Your task to perform on an android device: turn off wifi Image 0: 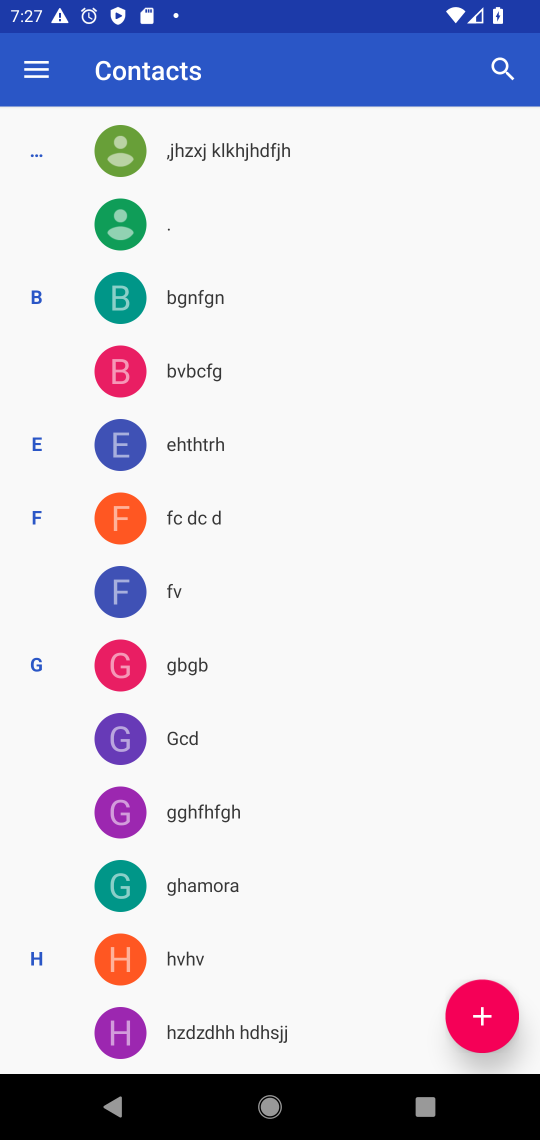
Step 0: press home button
Your task to perform on an android device: turn off wifi Image 1: 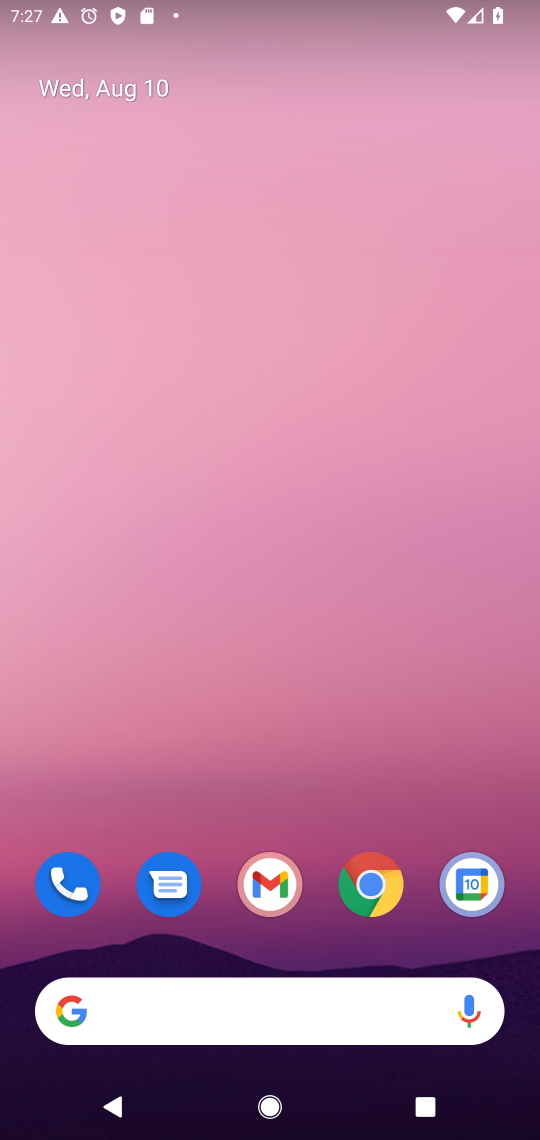
Step 1: drag from (38, 1072) to (299, 558)
Your task to perform on an android device: turn off wifi Image 2: 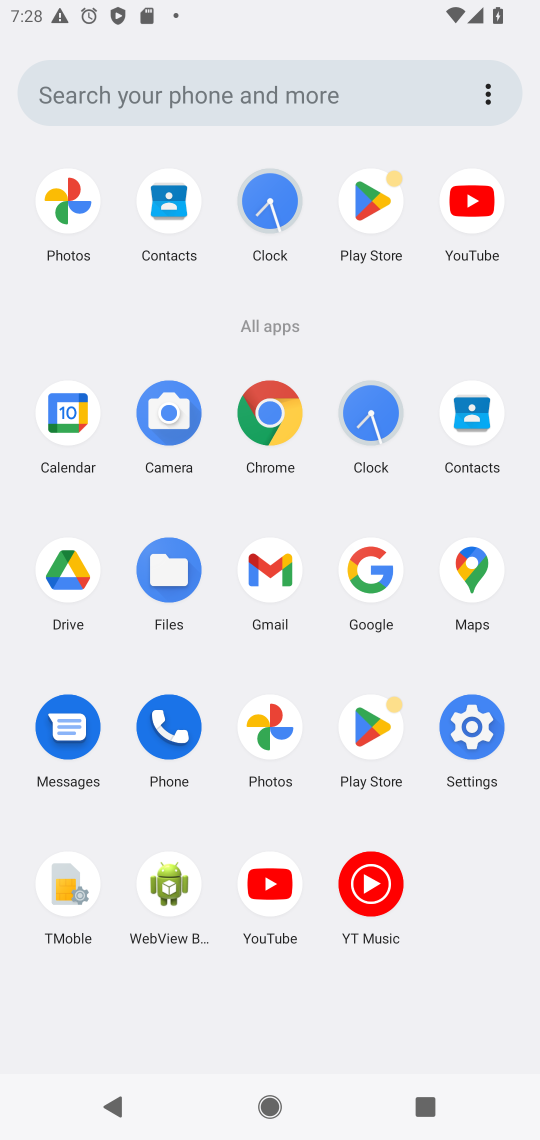
Step 2: click (471, 732)
Your task to perform on an android device: turn off wifi Image 3: 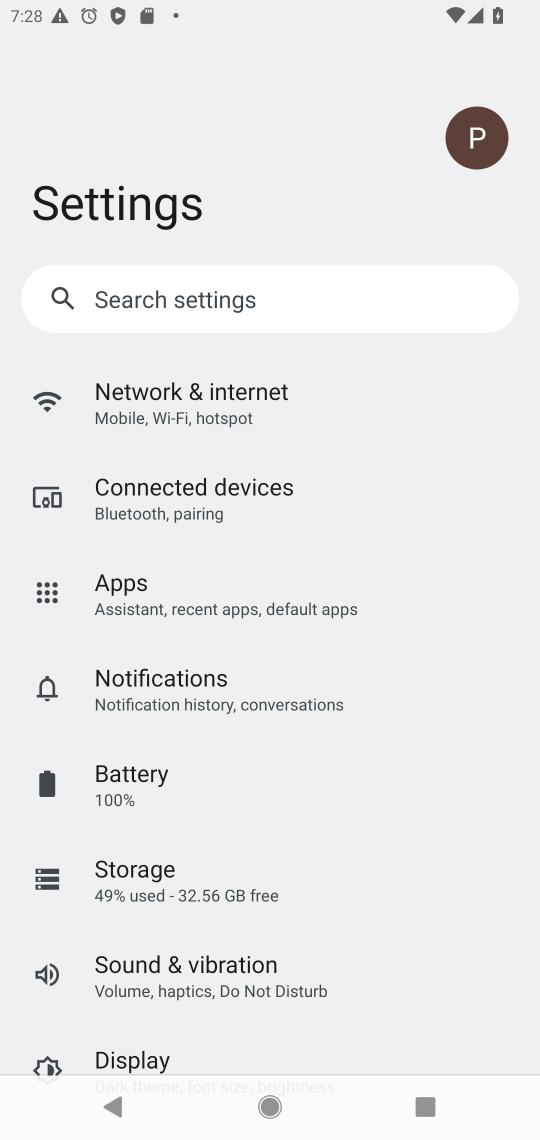
Step 3: click (222, 415)
Your task to perform on an android device: turn off wifi Image 4: 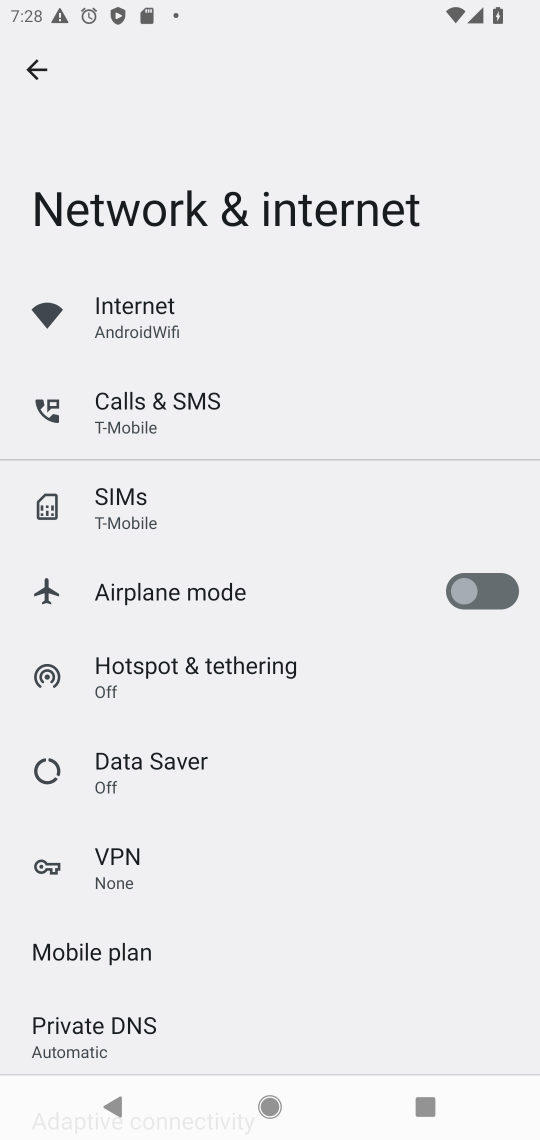
Step 4: click (144, 303)
Your task to perform on an android device: turn off wifi Image 5: 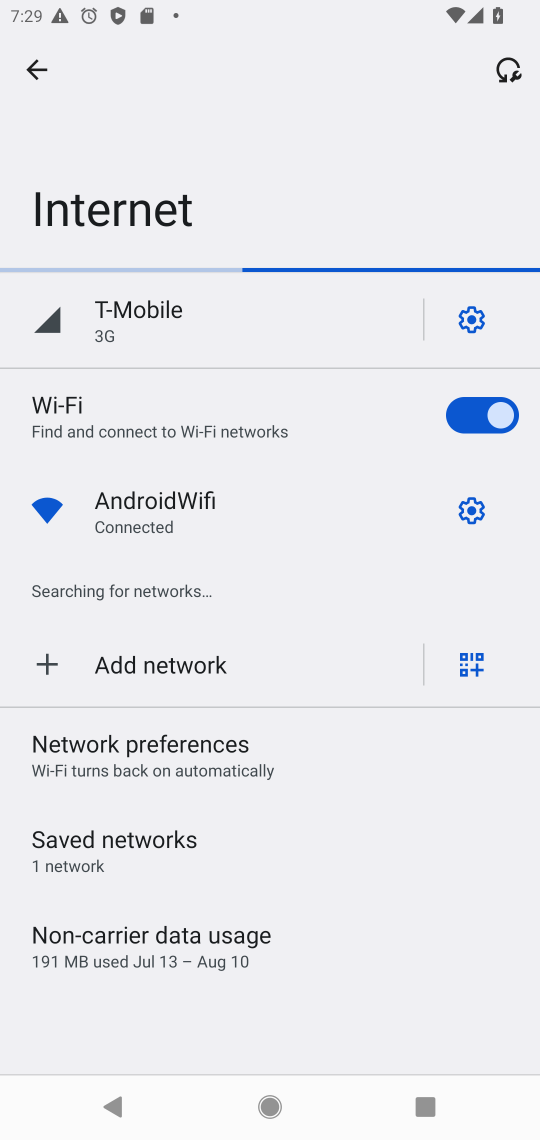
Step 5: task complete